Your task to perform on an android device: Open Reddit.com Image 0: 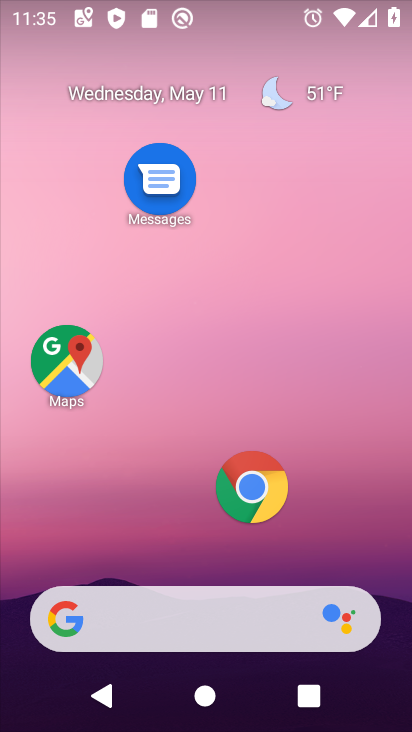
Step 0: click (264, 486)
Your task to perform on an android device: Open Reddit.com Image 1: 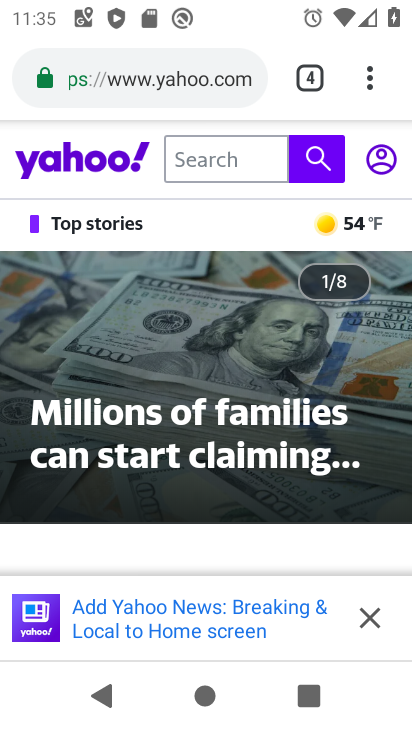
Step 1: click (297, 78)
Your task to perform on an android device: Open Reddit.com Image 2: 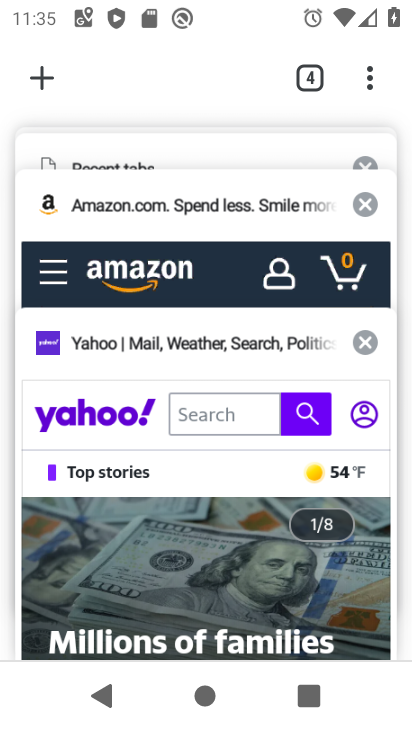
Step 2: click (42, 79)
Your task to perform on an android device: Open Reddit.com Image 3: 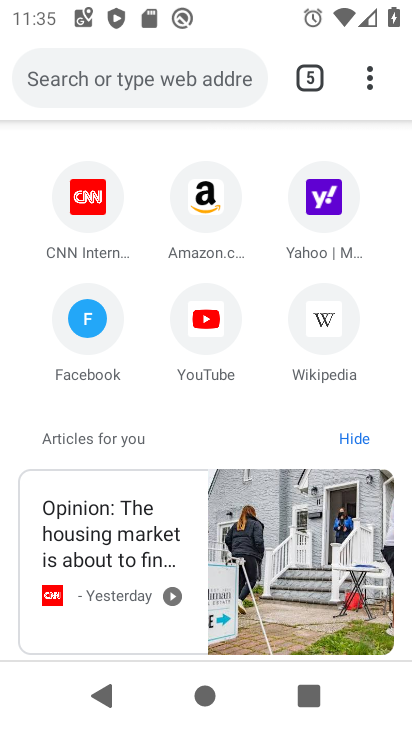
Step 3: click (142, 85)
Your task to perform on an android device: Open Reddit.com Image 4: 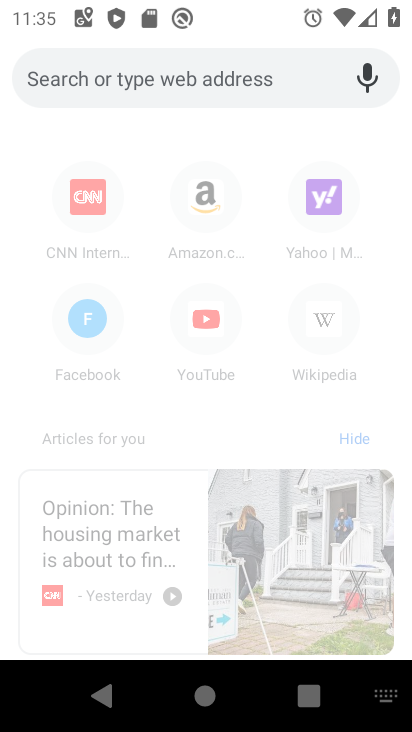
Step 4: type "Reddit.com"
Your task to perform on an android device: Open Reddit.com Image 5: 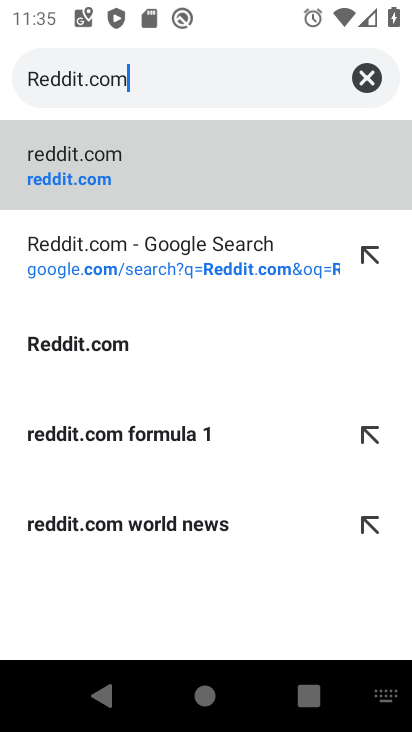
Step 5: click (182, 170)
Your task to perform on an android device: Open Reddit.com Image 6: 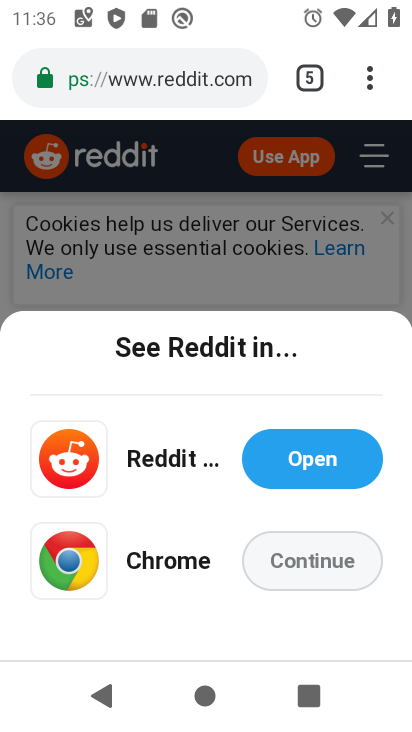
Step 6: task complete